Your task to perform on an android device: manage bookmarks in the chrome app Image 0: 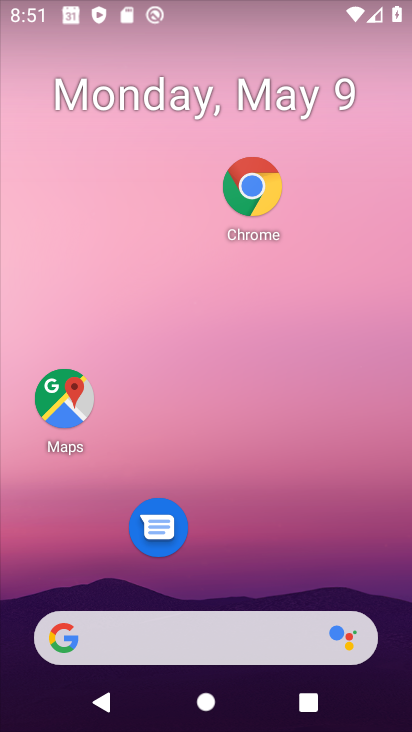
Step 0: click (249, 183)
Your task to perform on an android device: manage bookmarks in the chrome app Image 1: 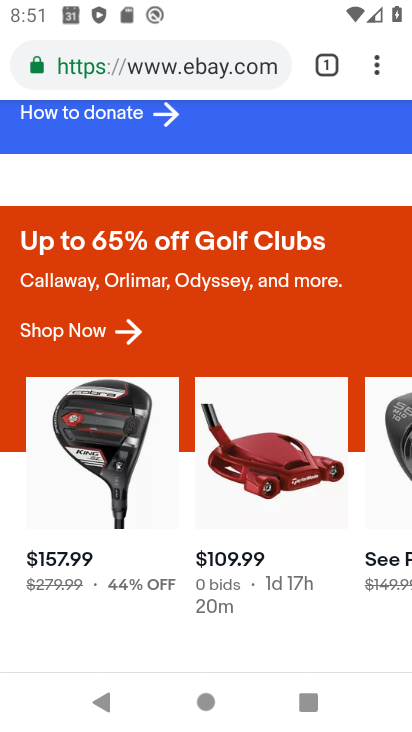
Step 1: click (247, 181)
Your task to perform on an android device: manage bookmarks in the chrome app Image 2: 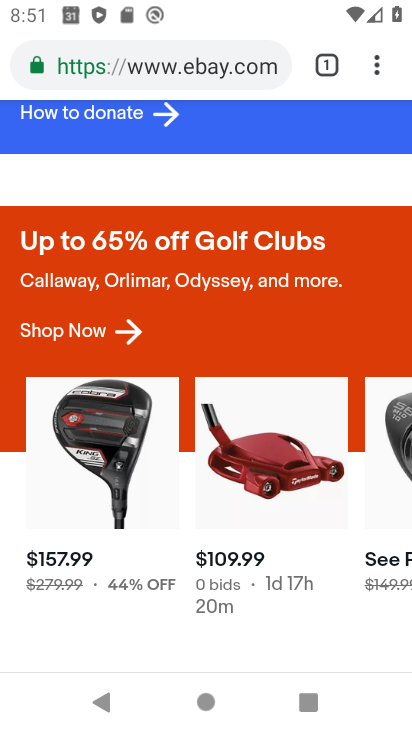
Step 2: click (376, 64)
Your task to perform on an android device: manage bookmarks in the chrome app Image 3: 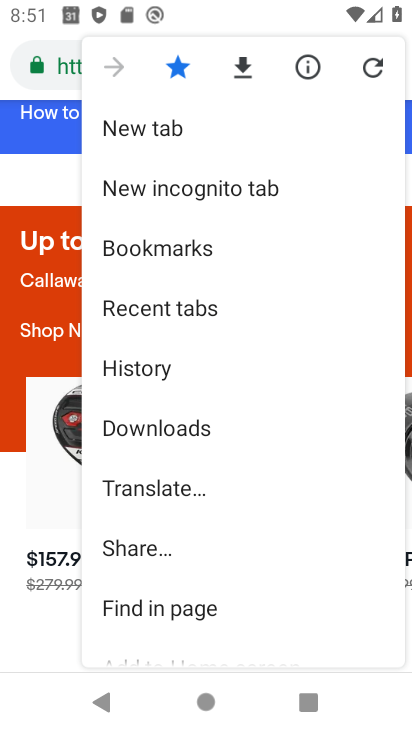
Step 3: click (222, 246)
Your task to perform on an android device: manage bookmarks in the chrome app Image 4: 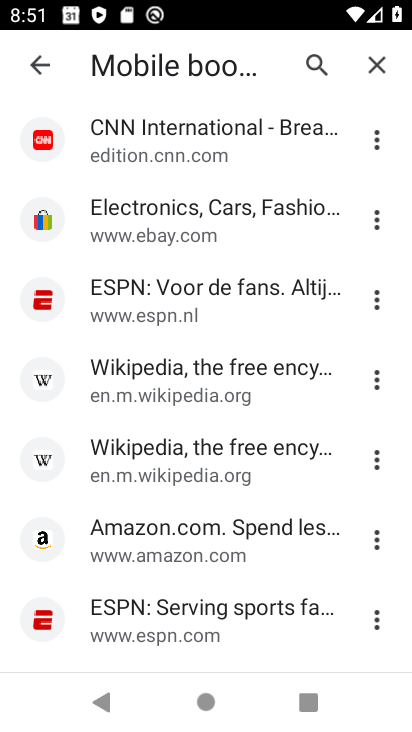
Step 4: click (376, 538)
Your task to perform on an android device: manage bookmarks in the chrome app Image 5: 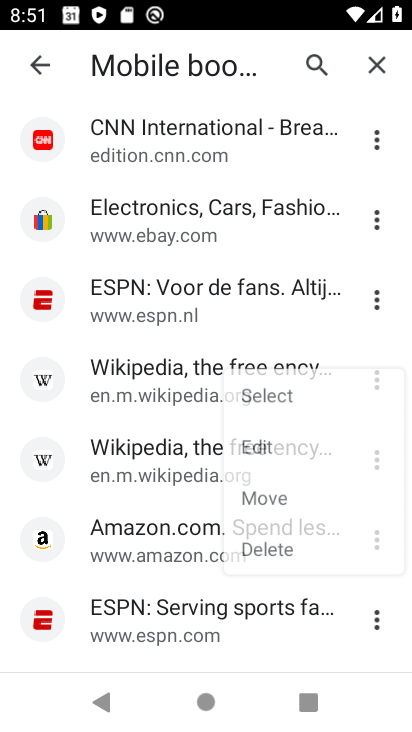
Step 5: click (379, 536)
Your task to perform on an android device: manage bookmarks in the chrome app Image 6: 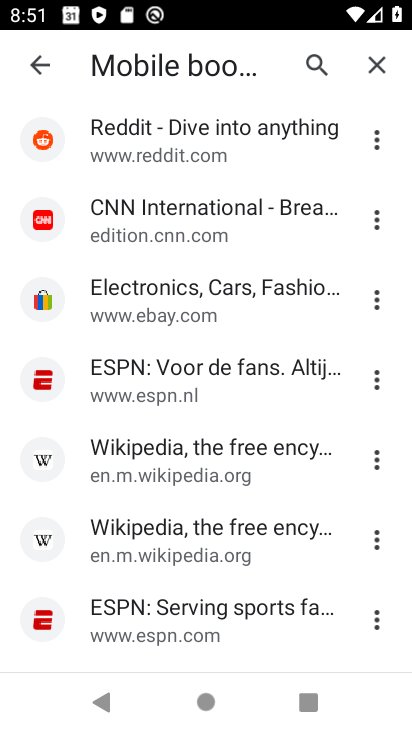
Step 6: task complete